Your task to perform on an android device: Look up the best rated hair dryer on Walmart. Image 0: 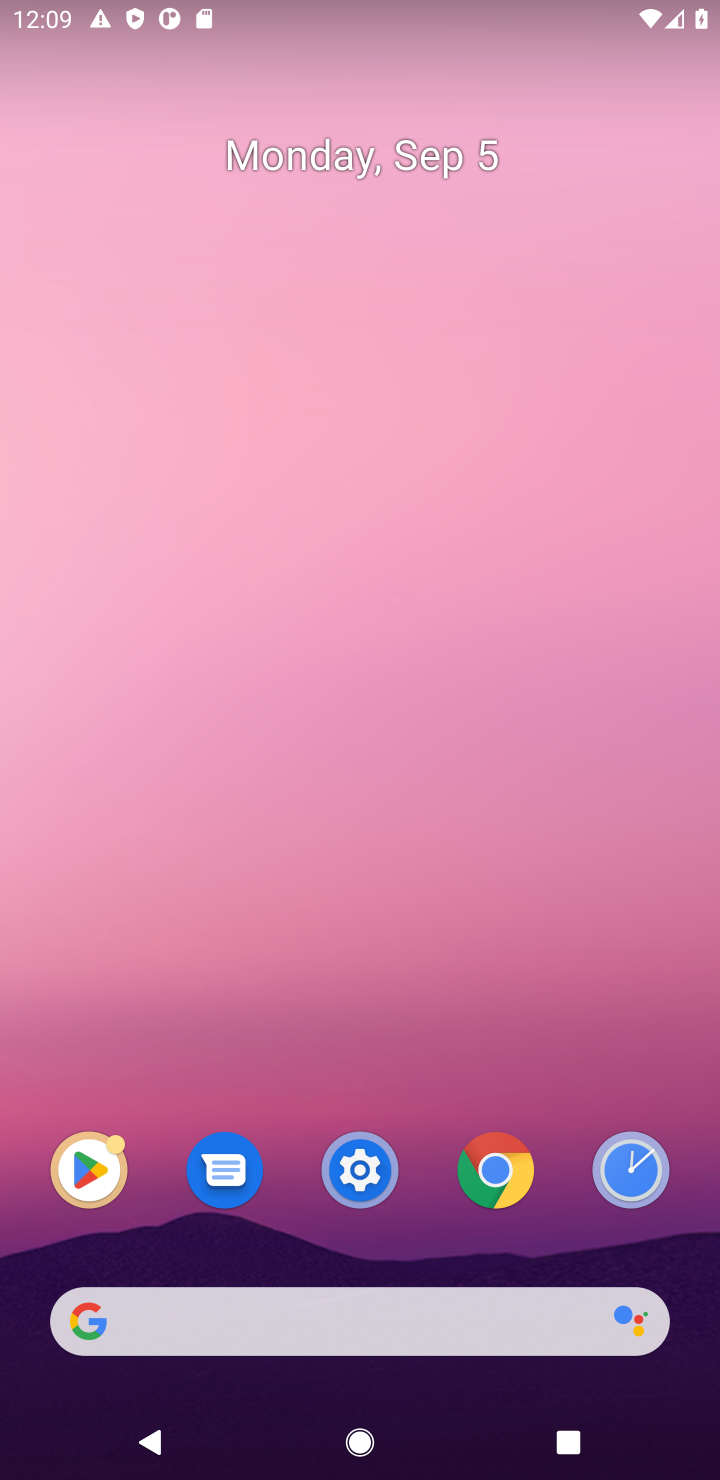
Step 0: click (261, 1318)
Your task to perform on an android device: Look up the best rated hair dryer on Walmart. Image 1: 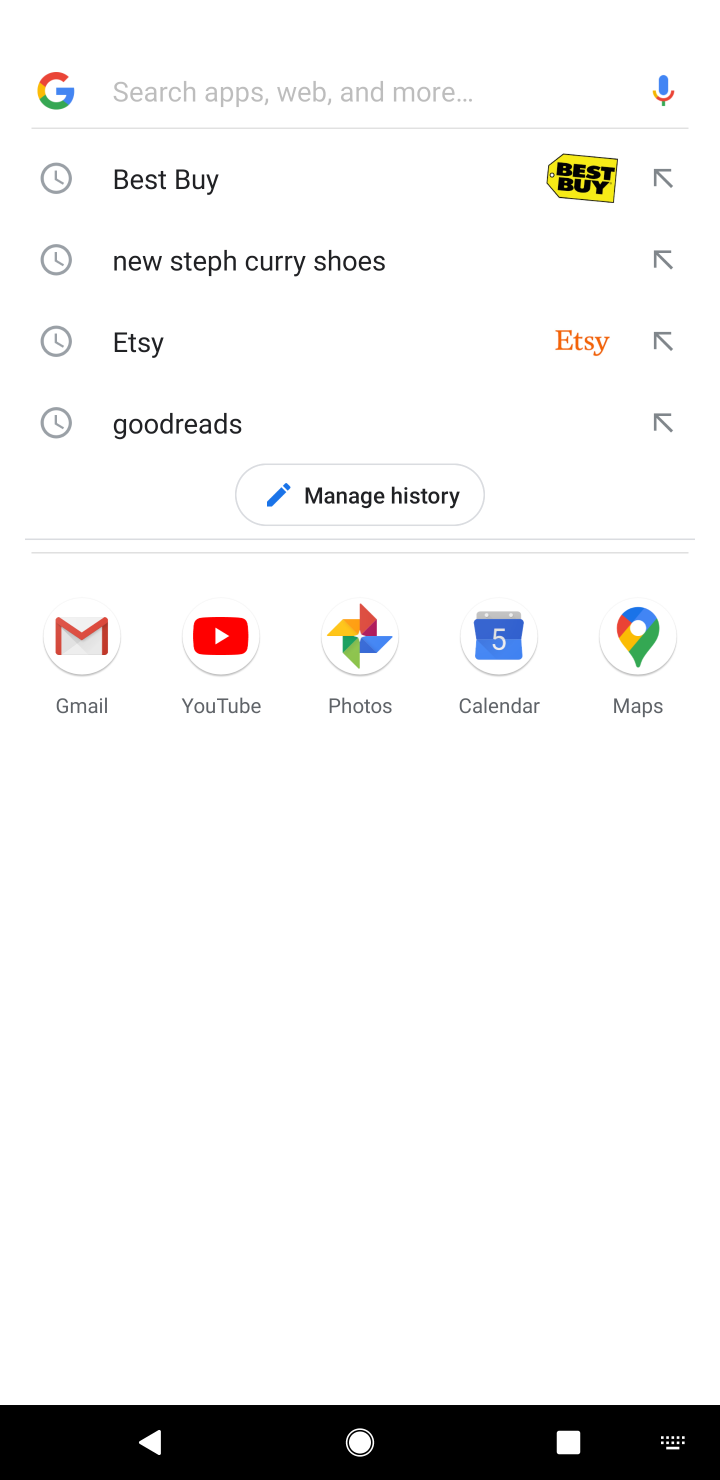
Step 1: type "Walmart"
Your task to perform on an android device: Look up the best rated hair dryer on Walmart. Image 2: 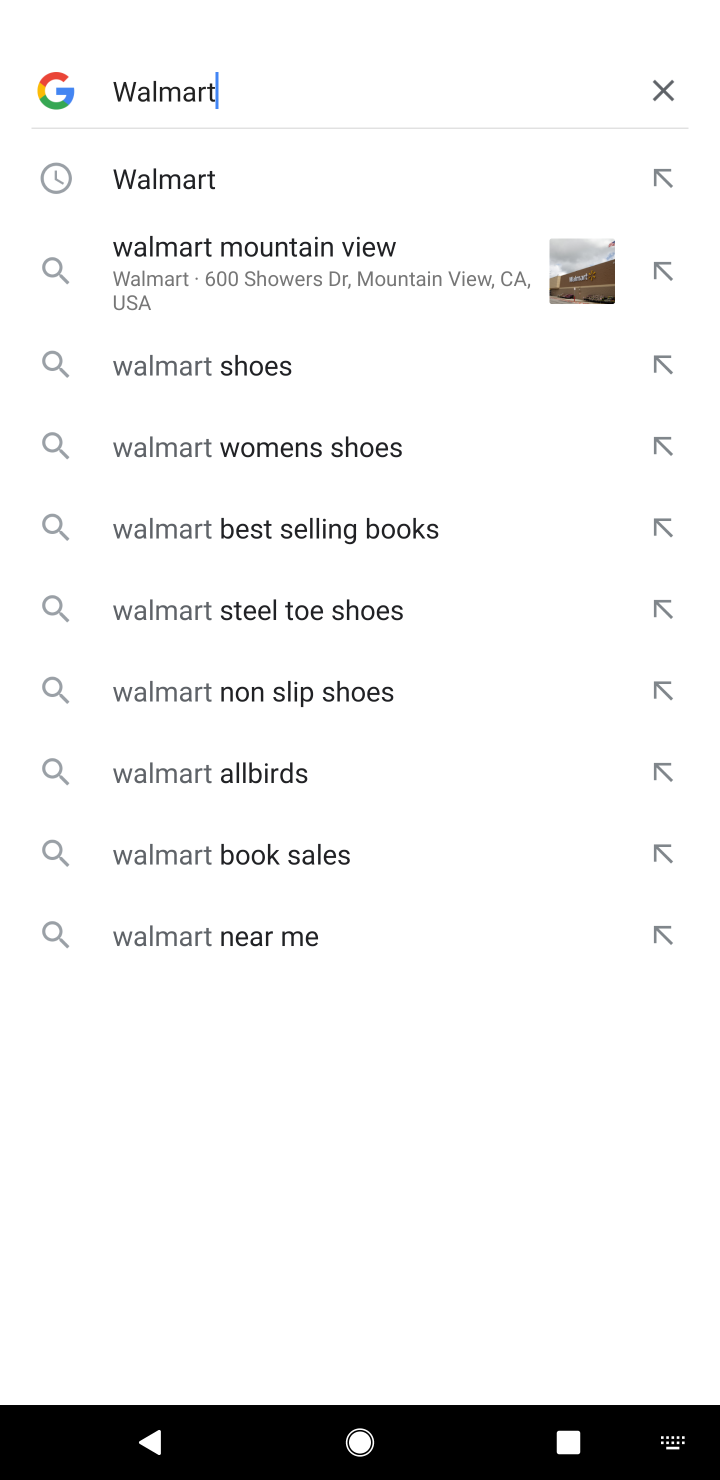
Step 2: click (277, 162)
Your task to perform on an android device: Look up the best rated hair dryer on Walmart. Image 3: 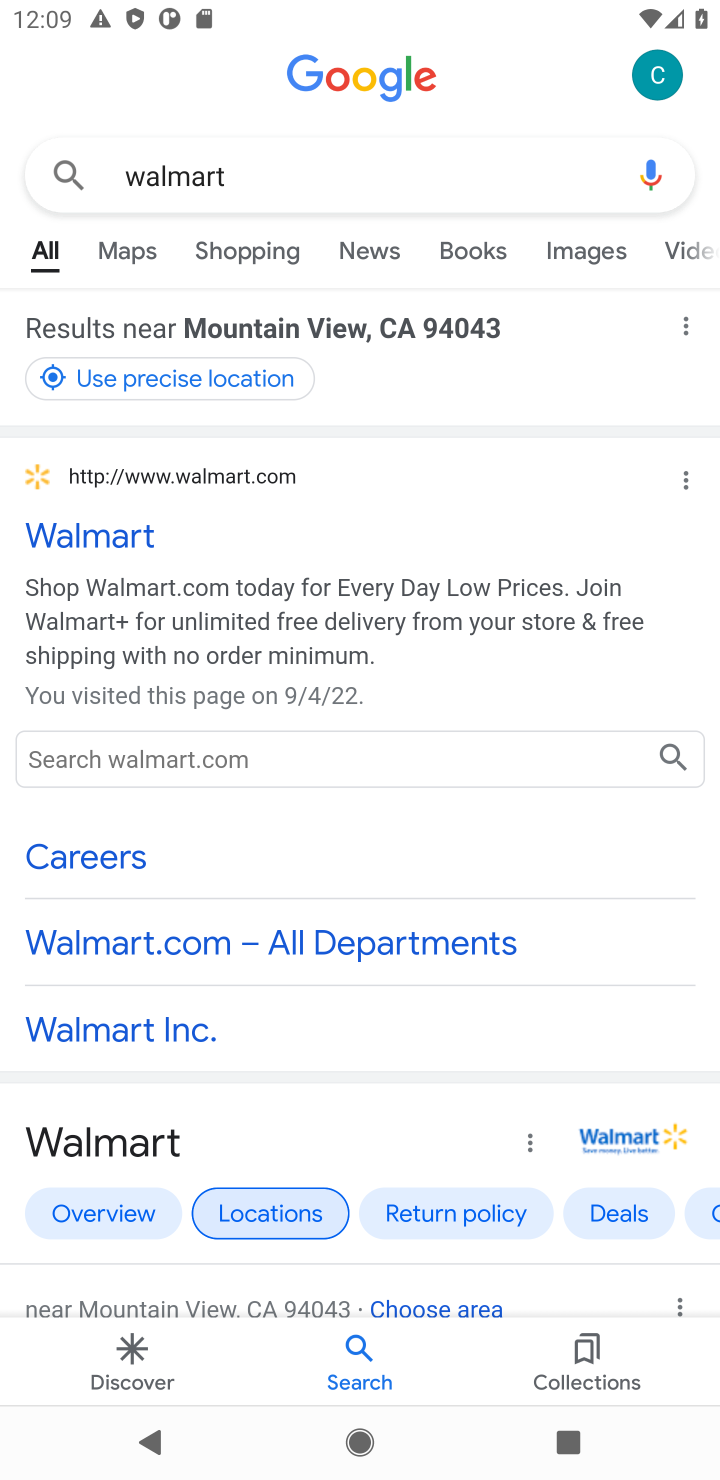
Step 3: click (104, 527)
Your task to perform on an android device: Look up the best rated hair dryer on Walmart. Image 4: 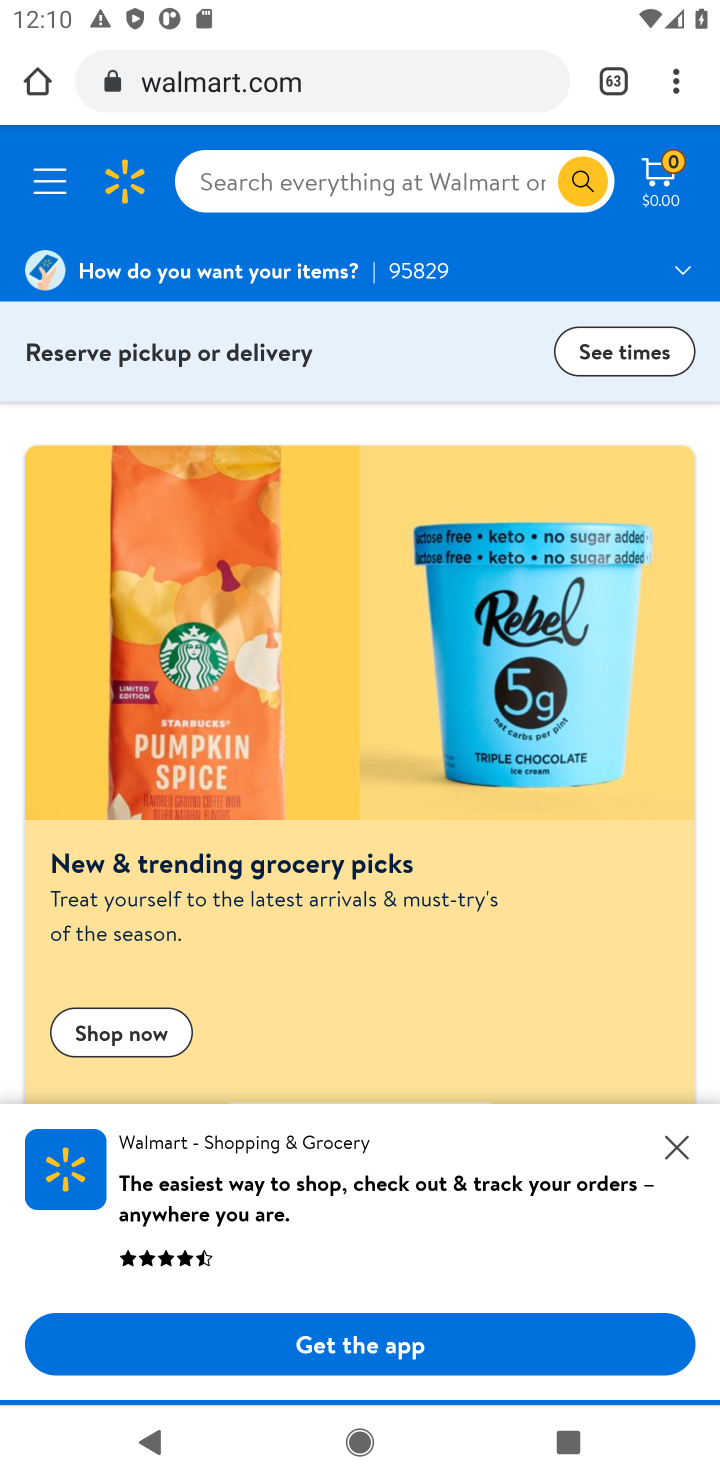
Step 4: click (442, 198)
Your task to perform on an android device: Look up the best rated hair dryer on Walmart. Image 5: 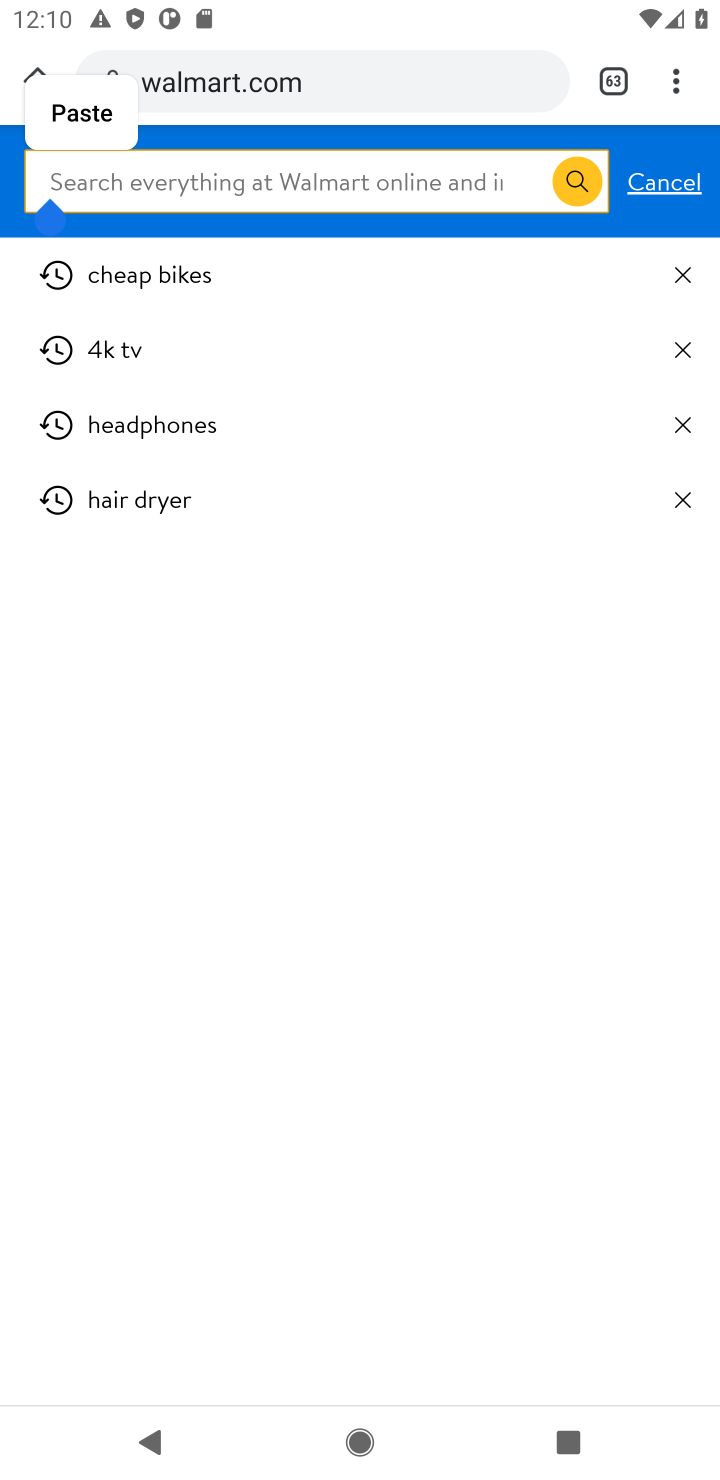
Step 5: type "hair dryer"
Your task to perform on an android device: Look up the best rated hair dryer on Walmart. Image 6: 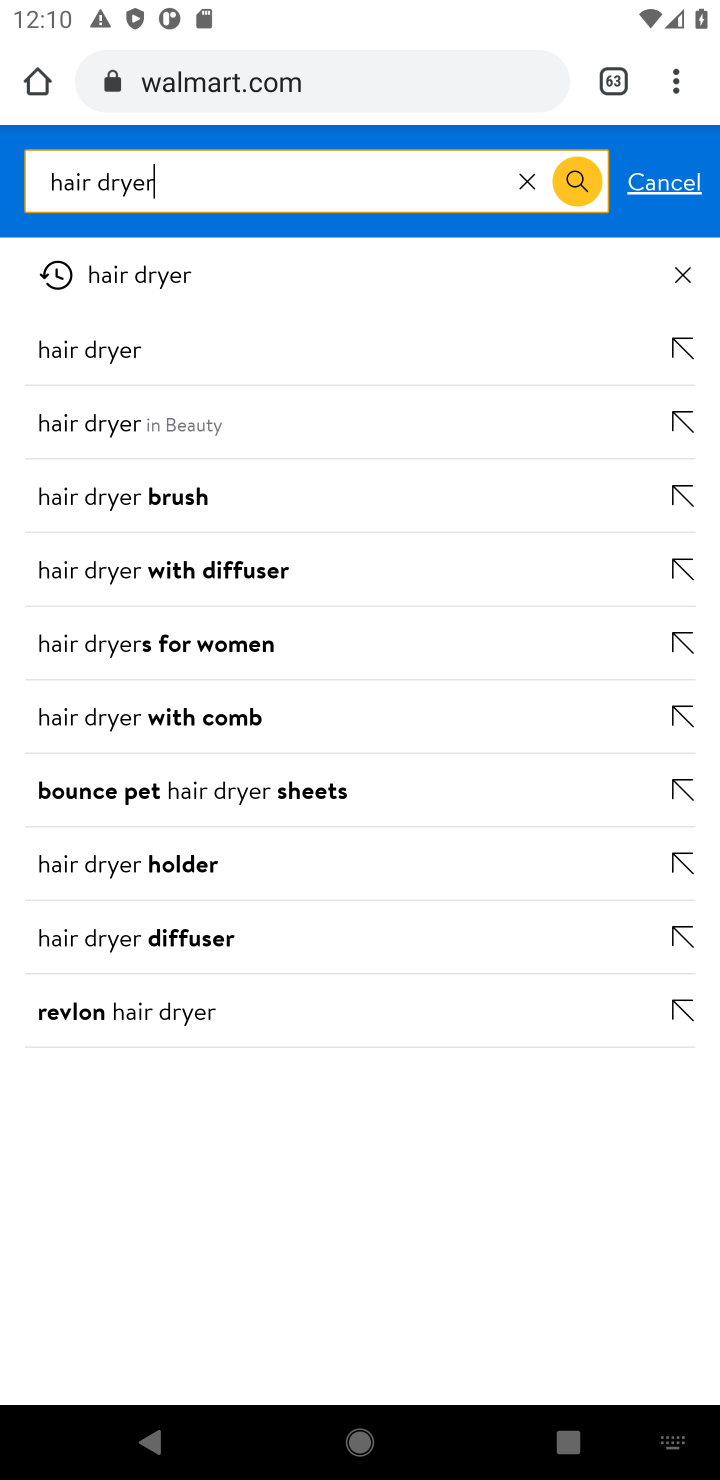
Step 6: click (242, 273)
Your task to perform on an android device: Look up the best rated hair dryer on Walmart. Image 7: 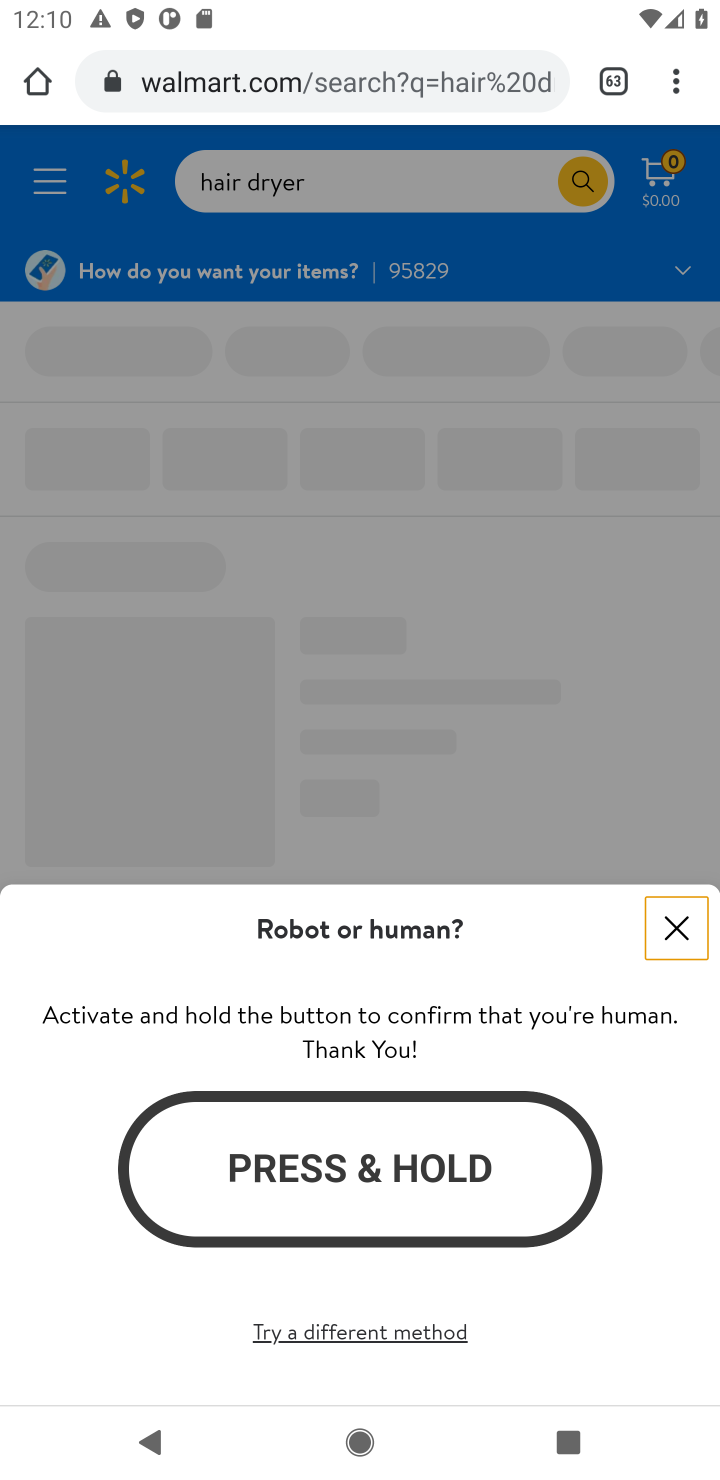
Step 7: click (480, 1135)
Your task to perform on an android device: Look up the best rated hair dryer on Walmart. Image 8: 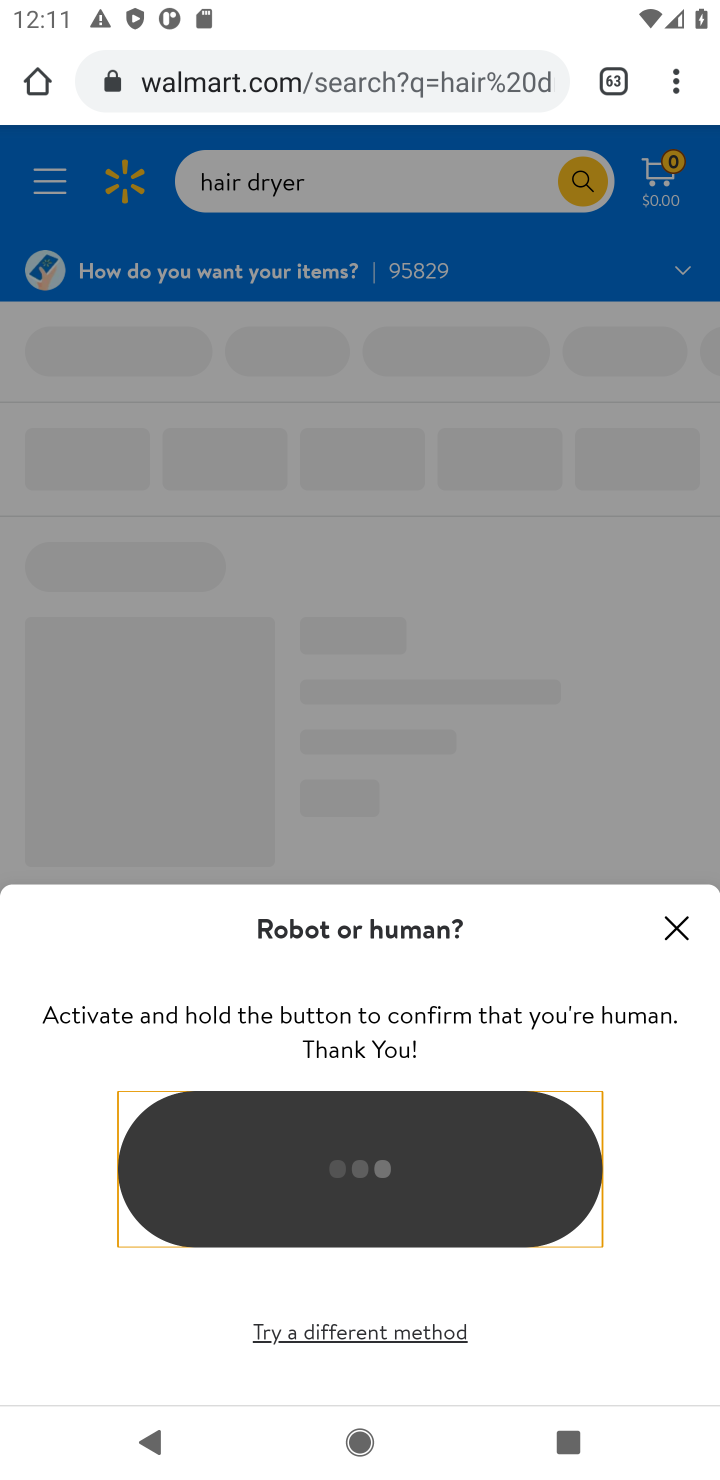
Step 8: click (672, 925)
Your task to perform on an android device: Look up the best rated hair dryer on Walmart. Image 9: 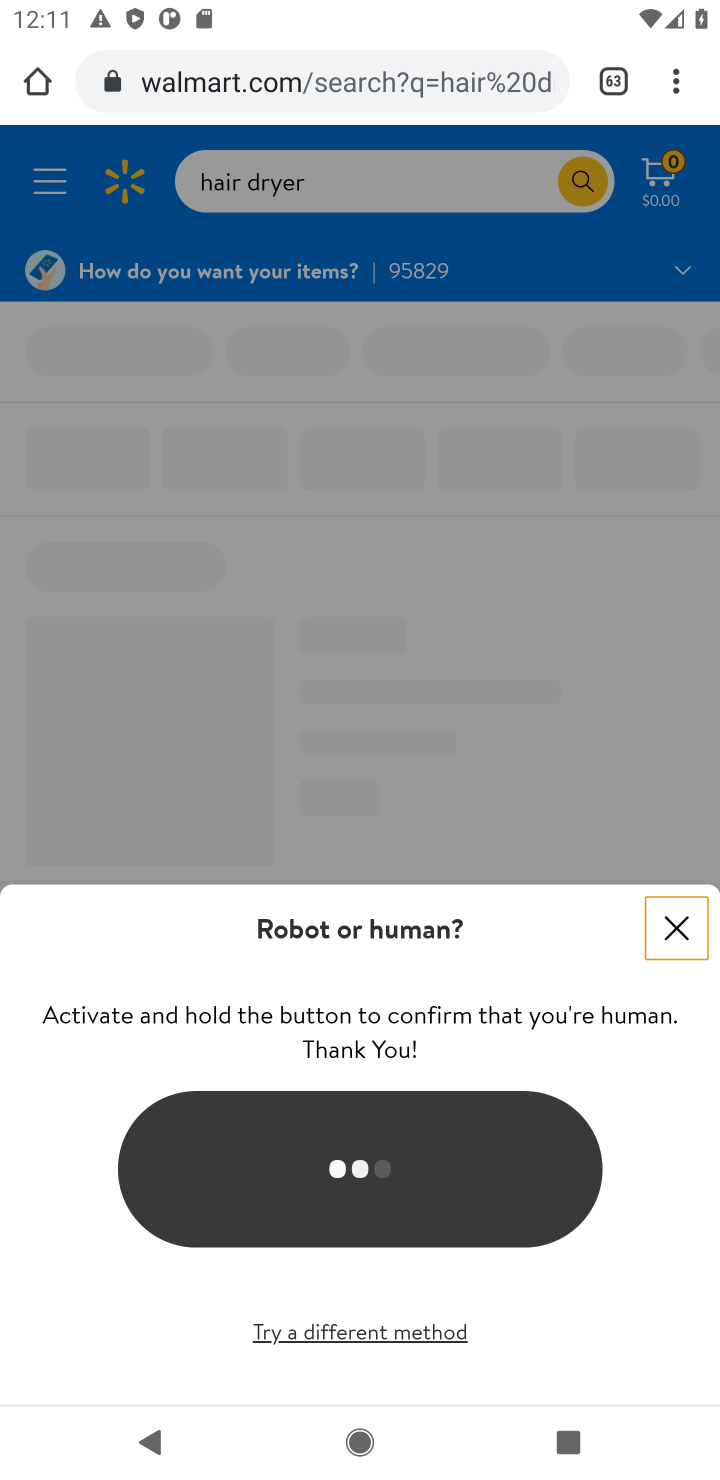
Step 9: click (682, 952)
Your task to perform on an android device: Look up the best rated hair dryer on Walmart. Image 10: 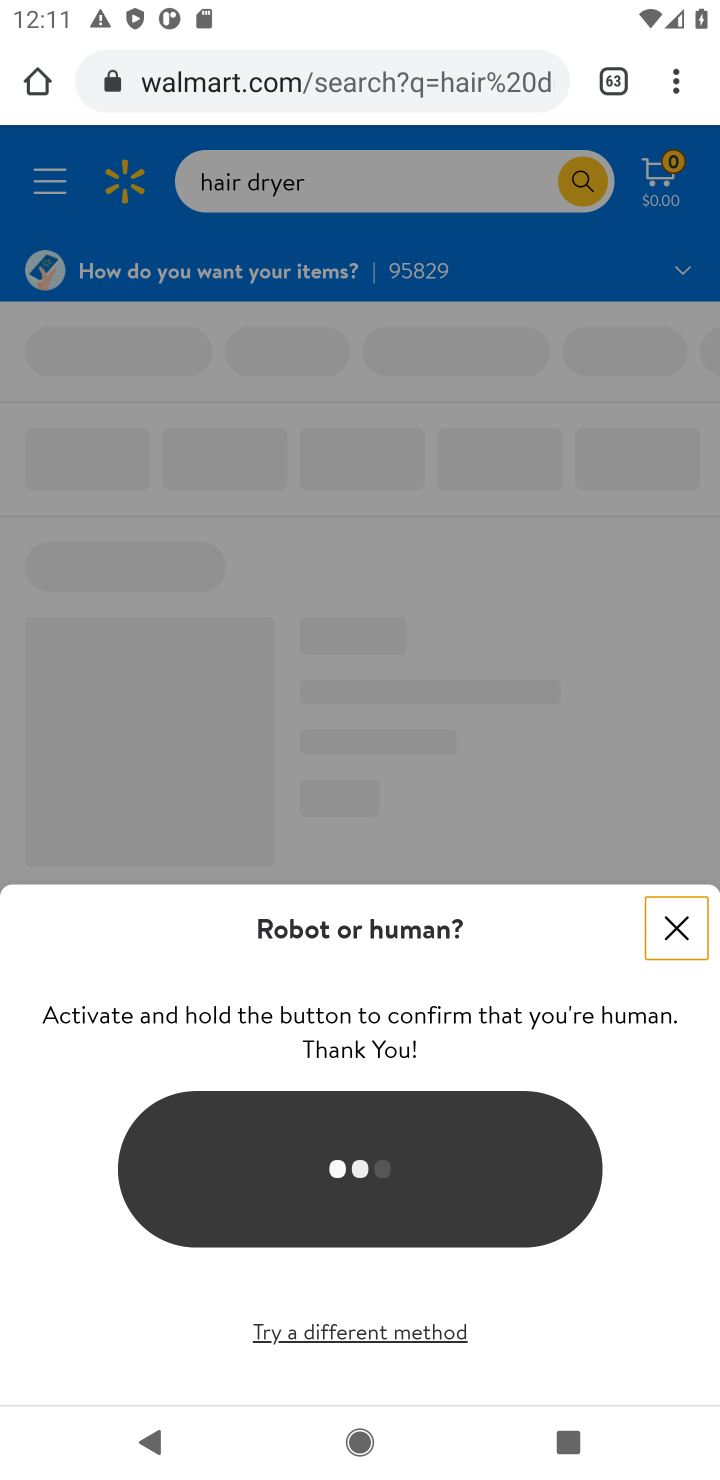
Step 10: click (682, 952)
Your task to perform on an android device: Look up the best rated hair dryer on Walmart. Image 11: 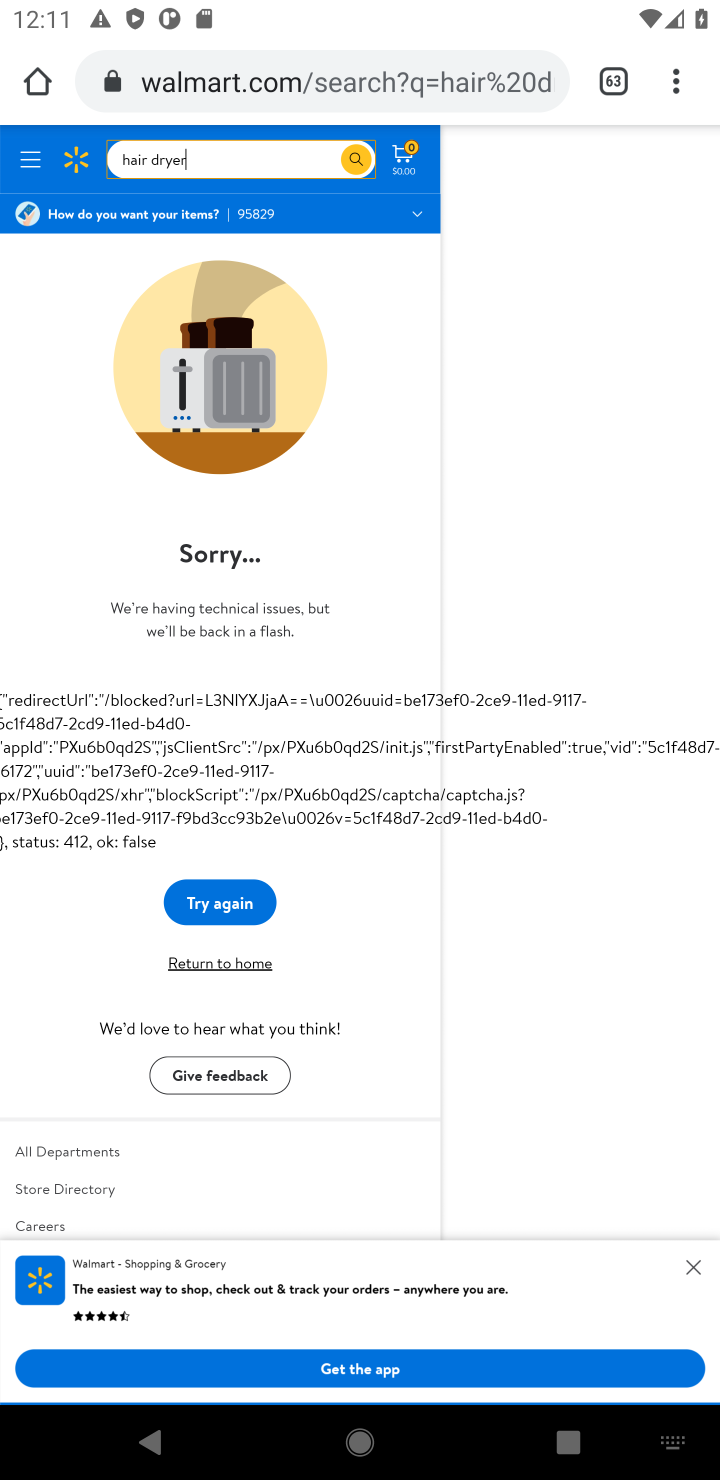
Step 11: task complete